Your task to perform on an android device: open a new tab in the chrome app Image 0: 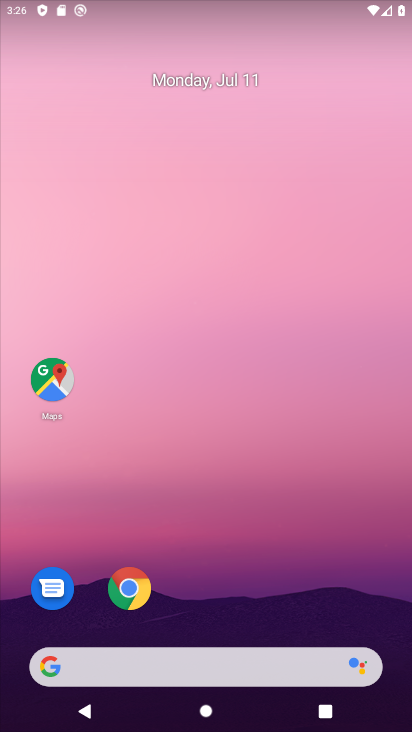
Step 0: click (128, 592)
Your task to perform on an android device: open a new tab in the chrome app Image 1: 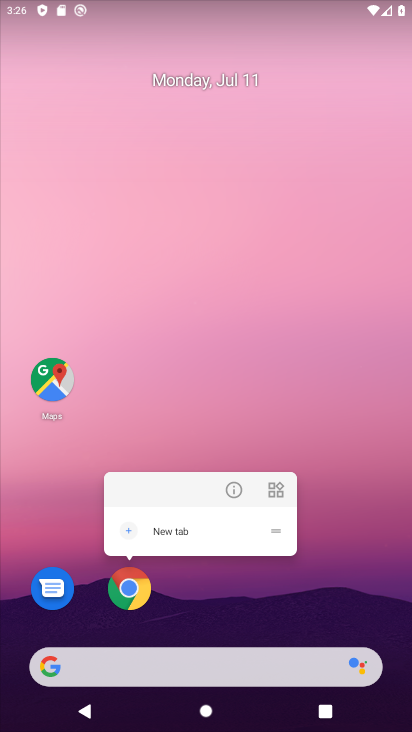
Step 1: click (128, 592)
Your task to perform on an android device: open a new tab in the chrome app Image 2: 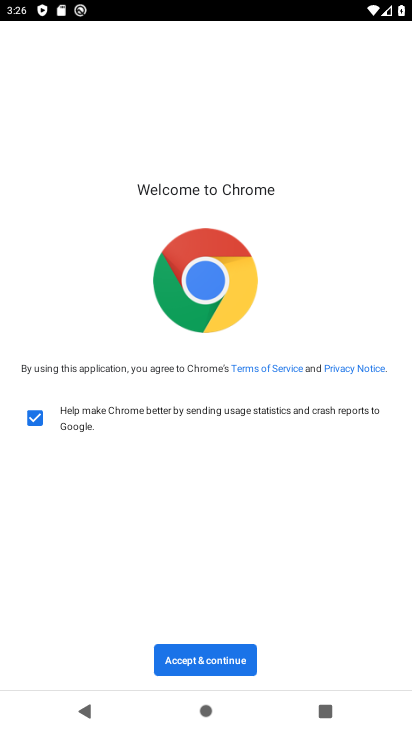
Step 2: click (222, 662)
Your task to perform on an android device: open a new tab in the chrome app Image 3: 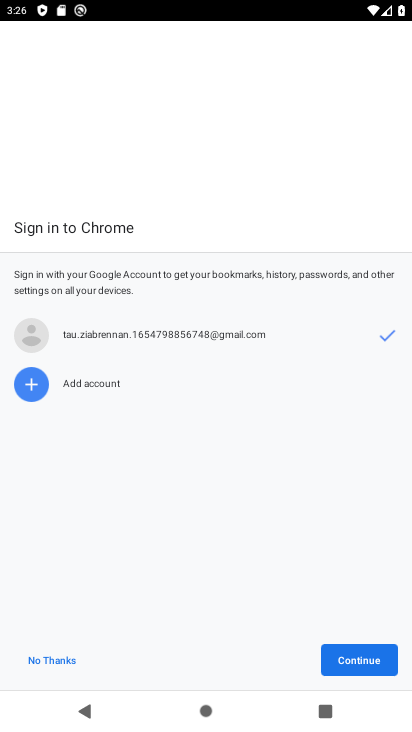
Step 3: click (355, 659)
Your task to perform on an android device: open a new tab in the chrome app Image 4: 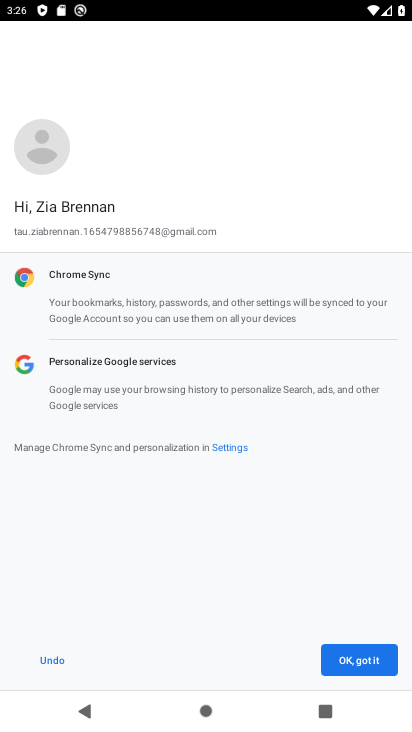
Step 4: click (355, 659)
Your task to perform on an android device: open a new tab in the chrome app Image 5: 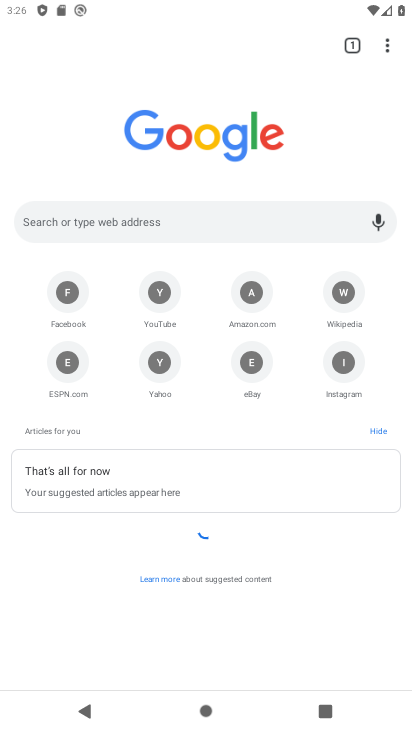
Step 5: click (386, 47)
Your task to perform on an android device: open a new tab in the chrome app Image 6: 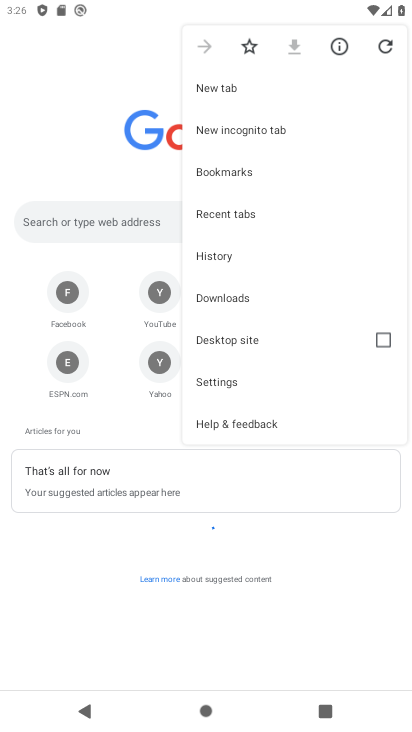
Step 6: click (235, 87)
Your task to perform on an android device: open a new tab in the chrome app Image 7: 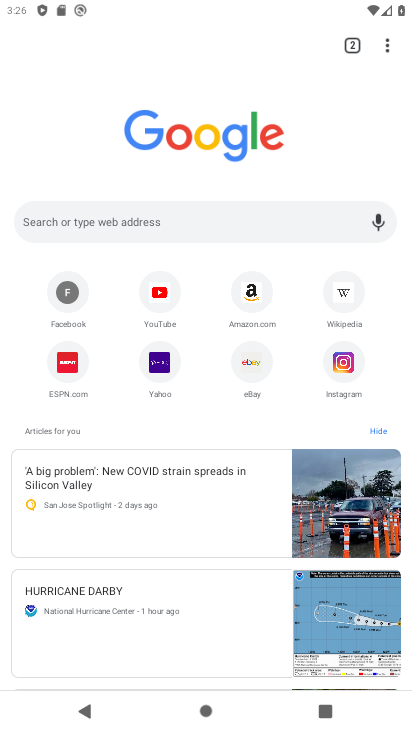
Step 7: task complete